Your task to perform on an android device: What is the capital of Sweden? Image 0: 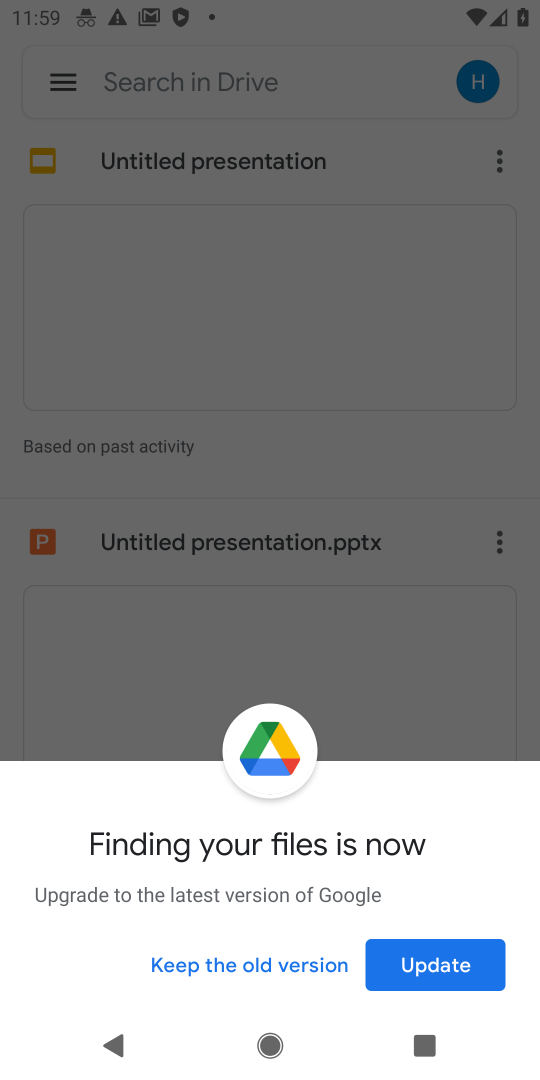
Step 0: press home button
Your task to perform on an android device: What is the capital of Sweden? Image 1: 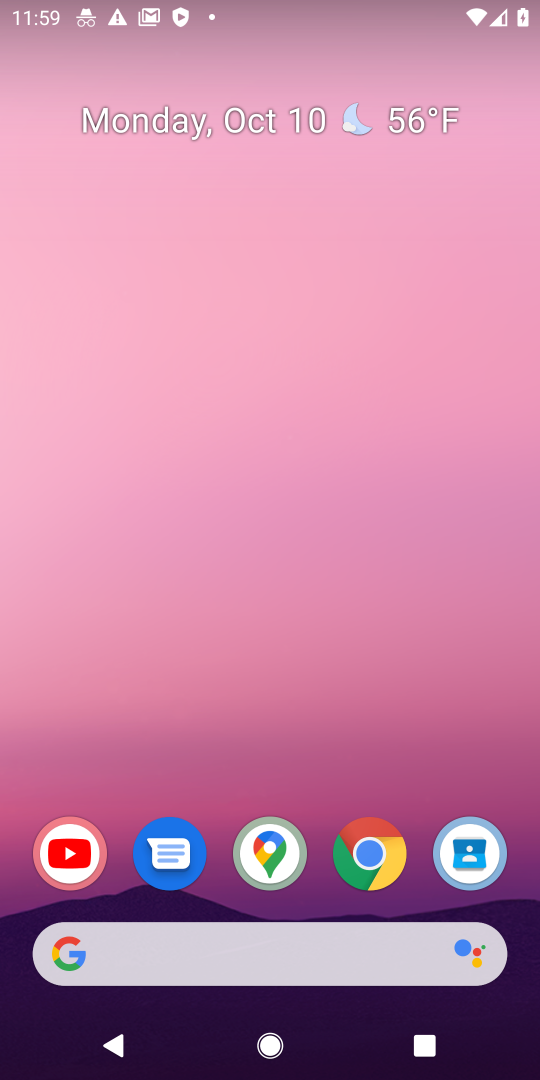
Step 1: click (230, 967)
Your task to perform on an android device: What is the capital of Sweden? Image 2: 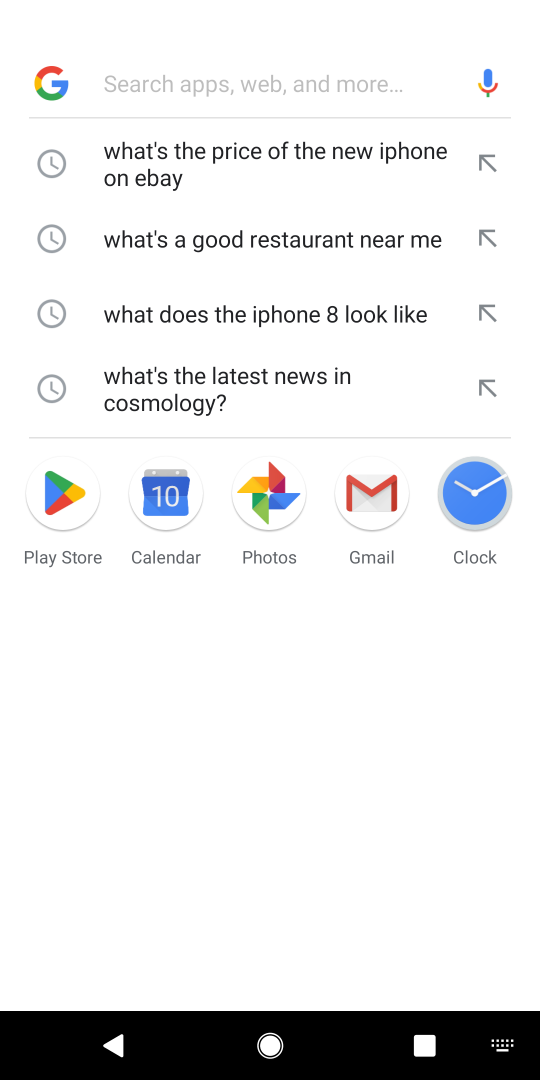
Step 2: type "What is the capital of Sweden"
Your task to perform on an android device: What is the capital of Sweden? Image 3: 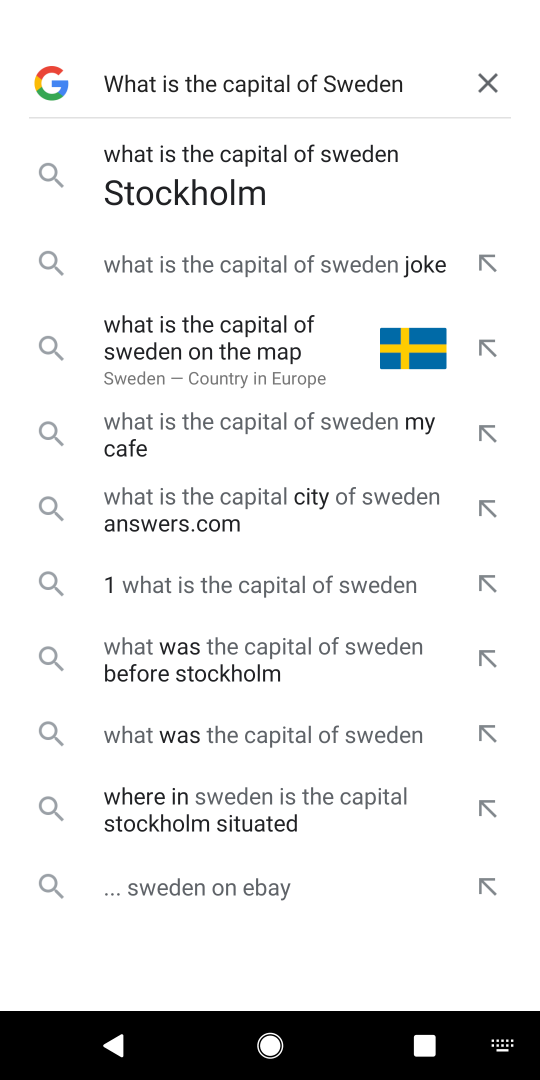
Step 3: press enter
Your task to perform on an android device: What is the capital of Sweden? Image 4: 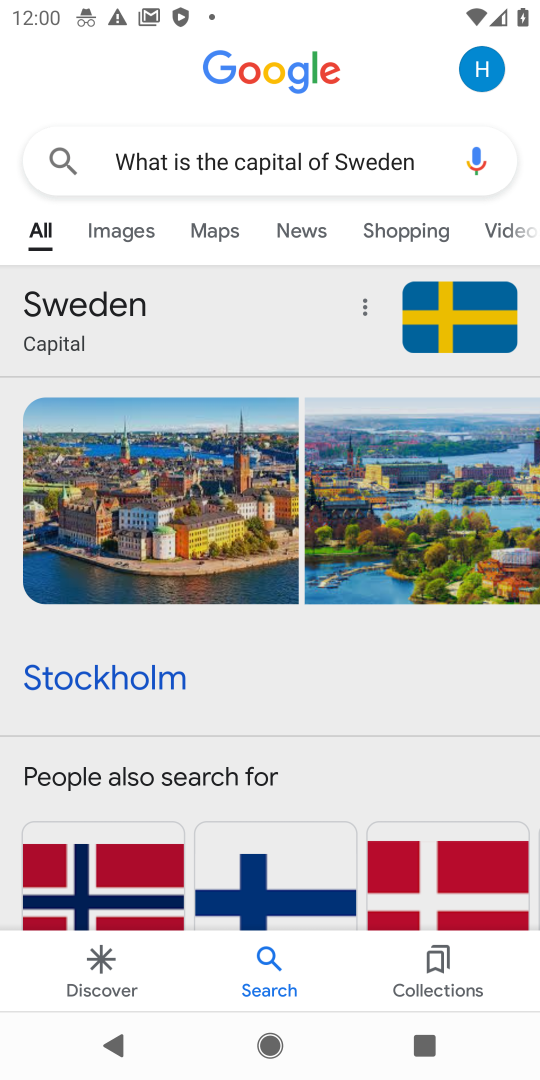
Step 4: task complete